Your task to perform on an android device: turn on showing notifications on the lock screen Image 0: 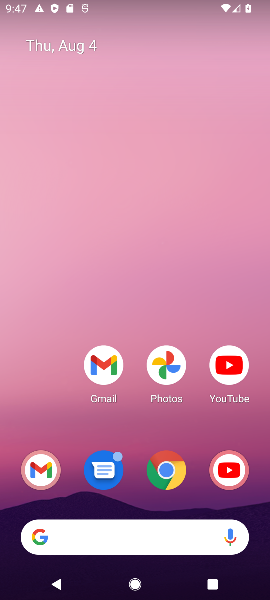
Step 0: drag from (142, 431) to (221, 0)
Your task to perform on an android device: turn on showing notifications on the lock screen Image 1: 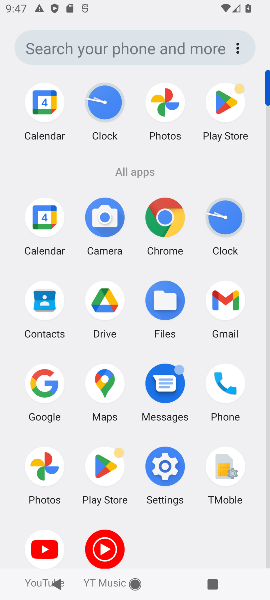
Step 1: click (165, 467)
Your task to perform on an android device: turn on showing notifications on the lock screen Image 2: 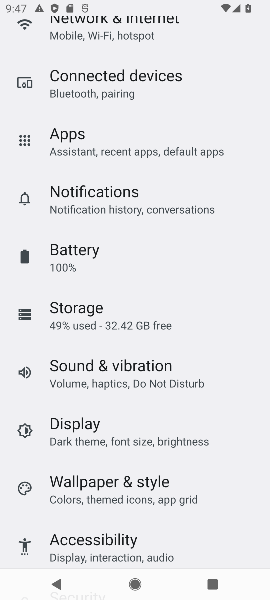
Step 2: click (127, 210)
Your task to perform on an android device: turn on showing notifications on the lock screen Image 3: 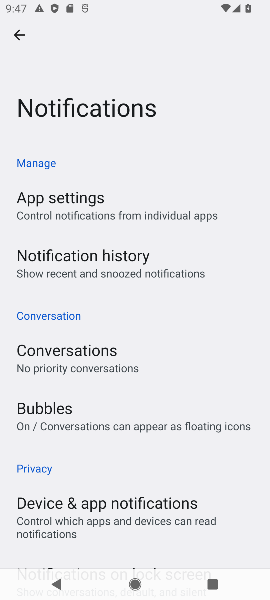
Step 3: drag from (113, 431) to (85, 182)
Your task to perform on an android device: turn on showing notifications on the lock screen Image 4: 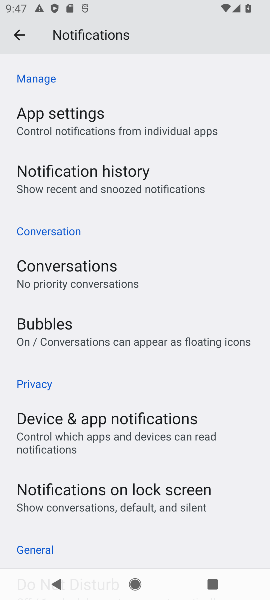
Step 4: click (94, 508)
Your task to perform on an android device: turn on showing notifications on the lock screen Image 5: 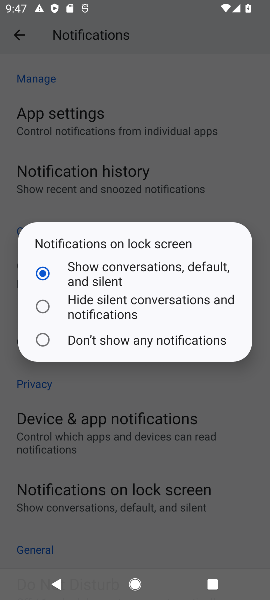
Step 5: click (116, 281)
Your task to perform on an android device: turn on showing notifications on the lock screen Image 6: 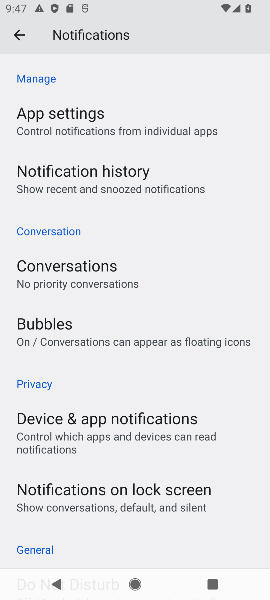
Step 6: task complete